Your task to perform on an android device: turn off notifications in google photos Image 0: 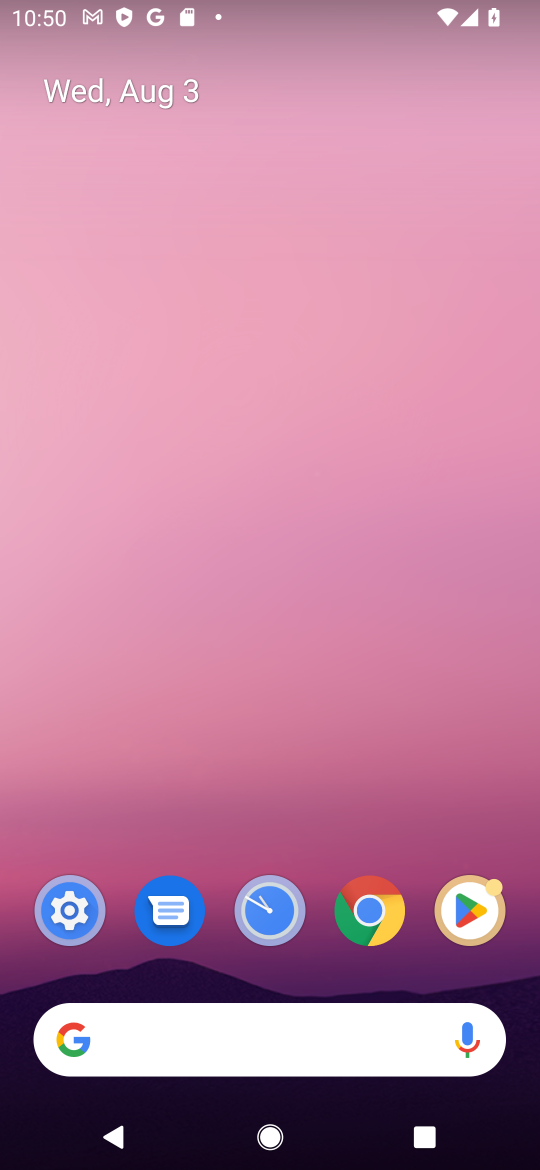
Step 0: drag from (336, 916) to (327, 176)
Your task to perform on an android device: turn off notifications in google photos Image 1: 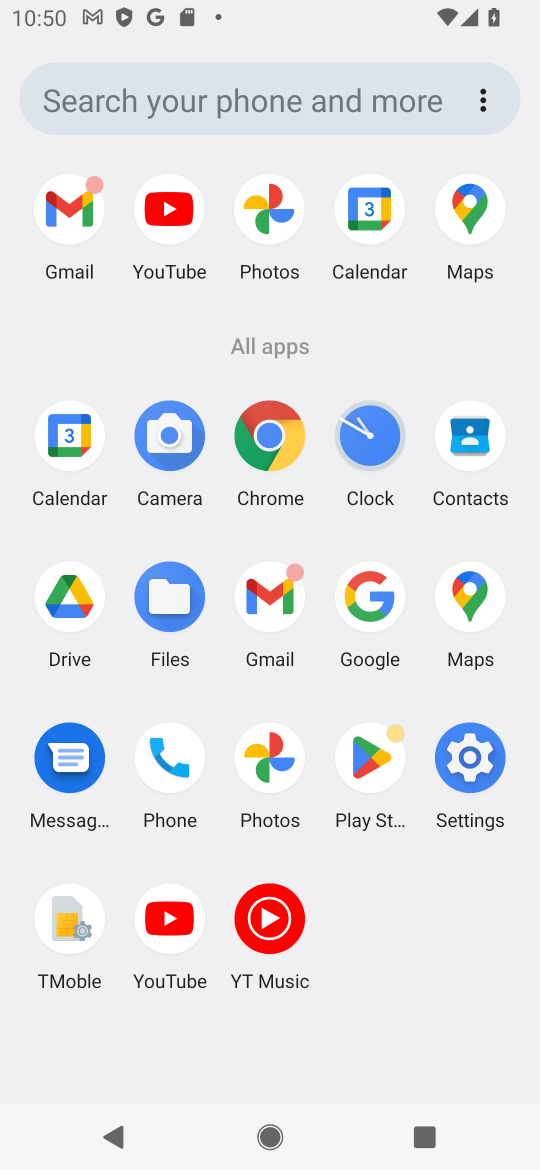
Step 1: click (267, 762)
Your task to perform on an android device: turn off notifications in google photos Image 2: 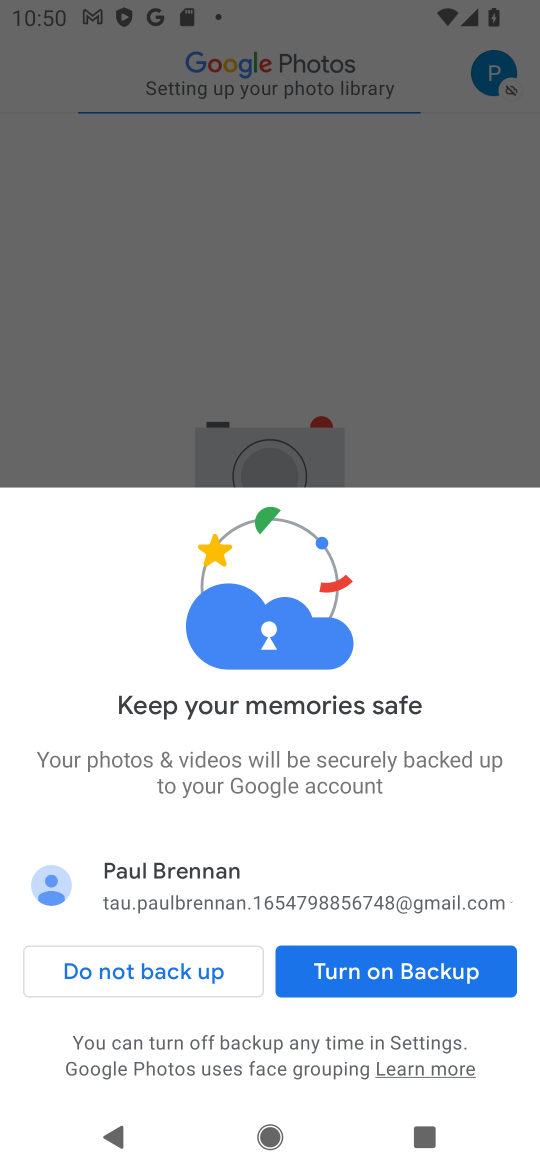
Step 2: click (143, 976)
Your task to perform on an android device: turn off notifications in google photos Image 3: 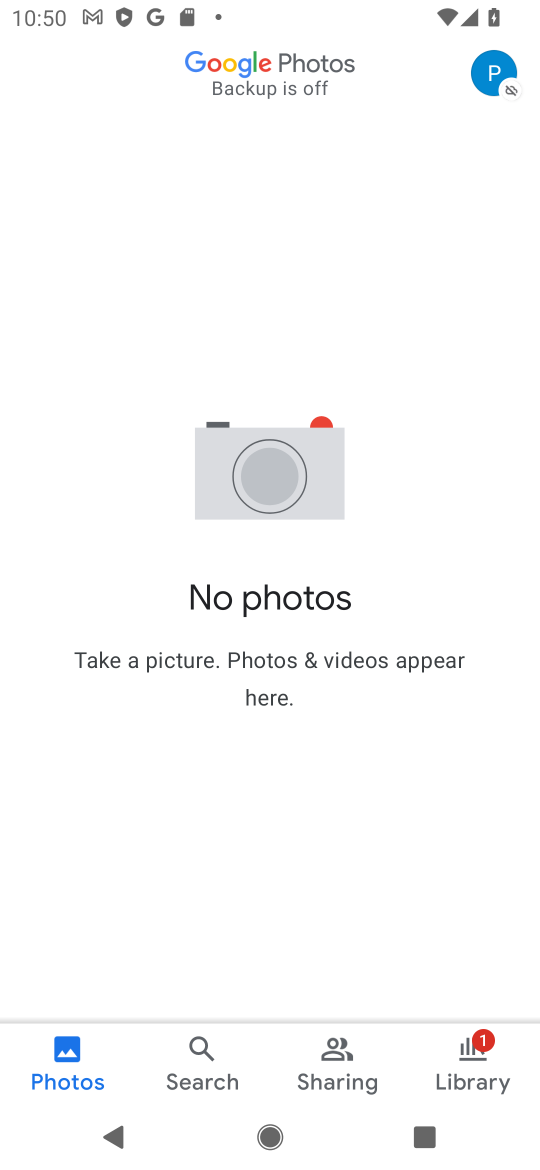
Step 3: click (514, 93)
Your task to perform on an android device: turn off notifications in google photos Image 4: 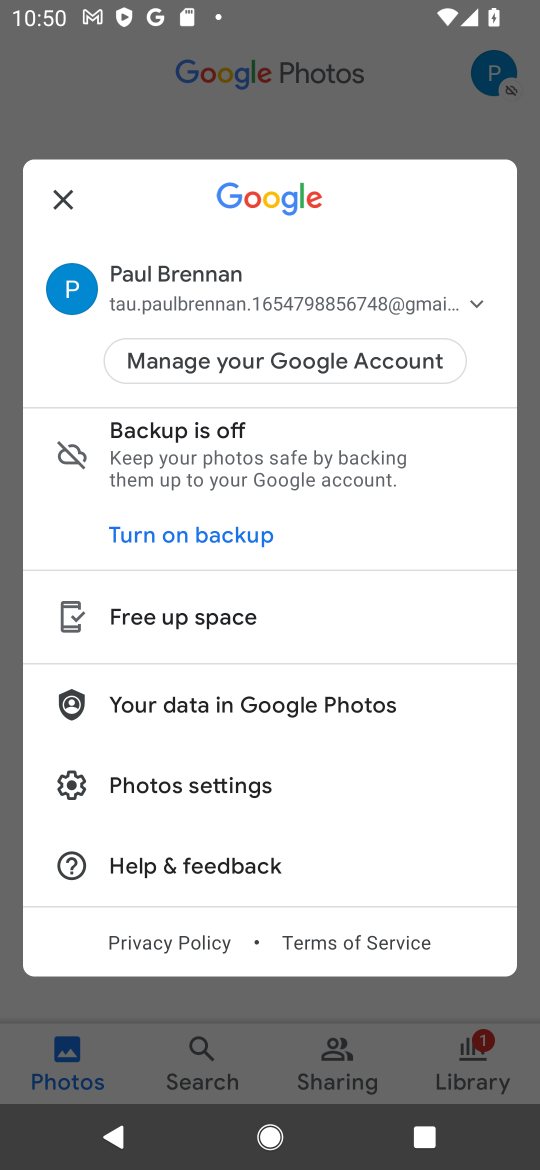
Step 4: click (190, 784)
Your task to perform on an android device: turn off notifications in google photos Image 5: 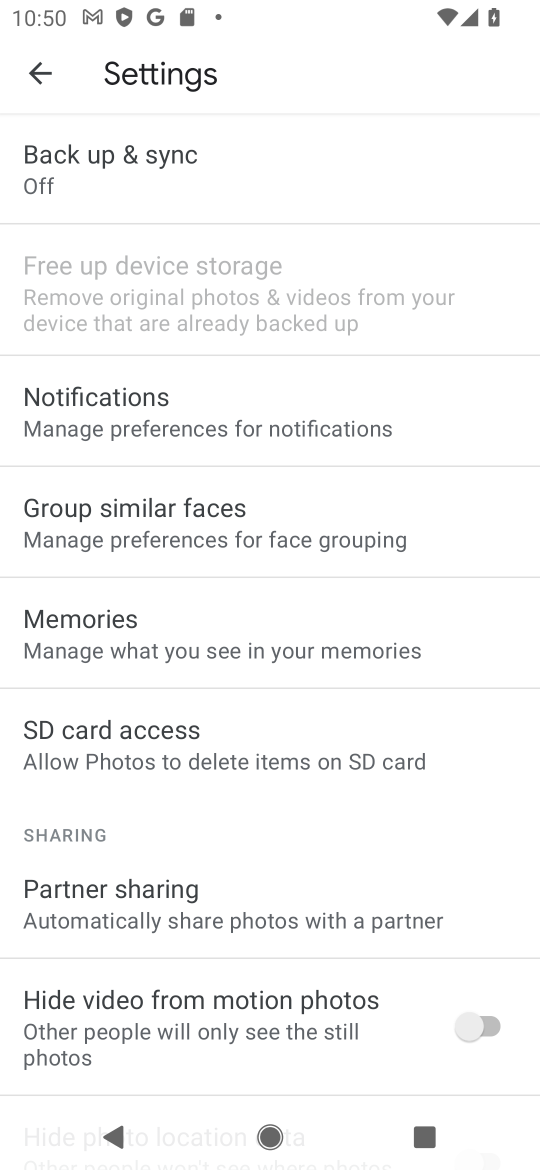
Step 5: click (111, 427)
Your task to perform on an android device: turn off notifications in google photos Image 6: 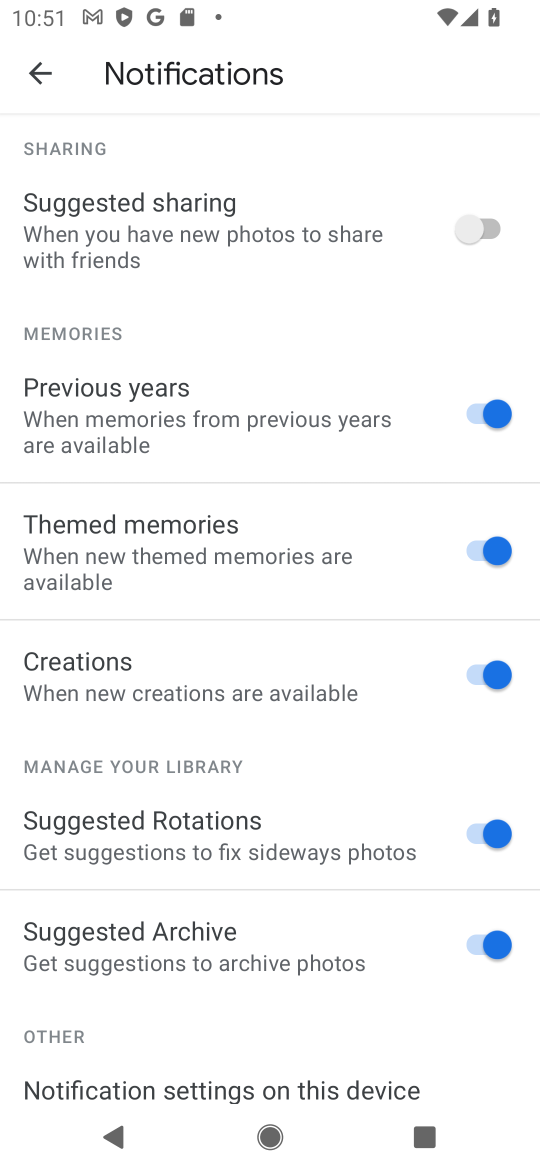
Step 6: task complete